Your task to perform on an android device: Open Google Chrome and click the shortcut for Amazon.com Image 0: 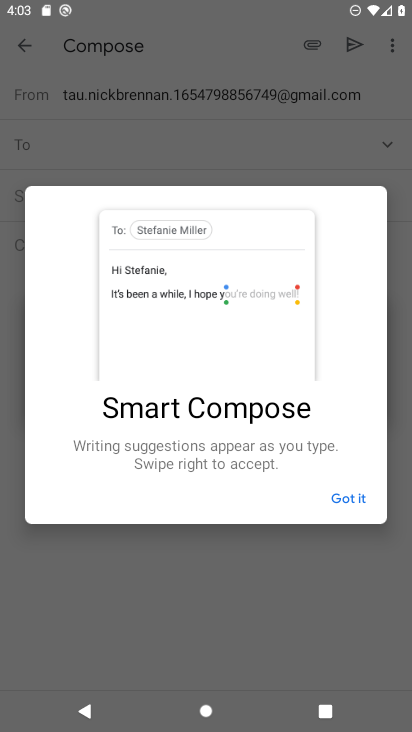
Step 0: press home button
Your task to perform on an android device: Open Google Chrome and click the shortcut for Amazon.com Image 1: 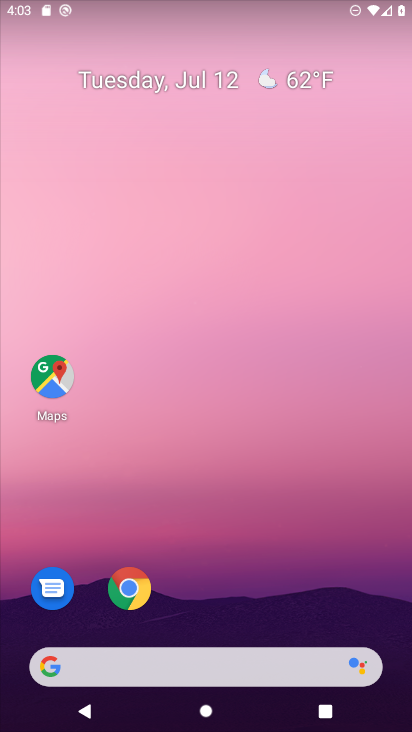
Step 1: click (137, 586)
Your task to perform on an android device: Open Google Chrome and click the shortcut for Amazon.com Image 2: 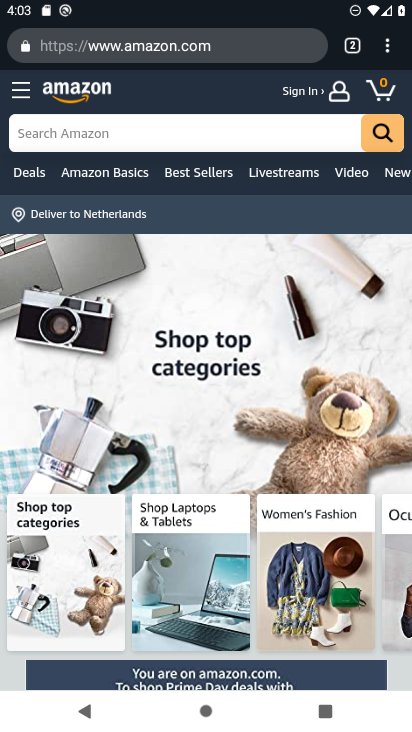
Step 2: click (389, 50)
Your task to perform on an android device: Open Google Chrome and click the shortcut for Amazon.com Image 3: 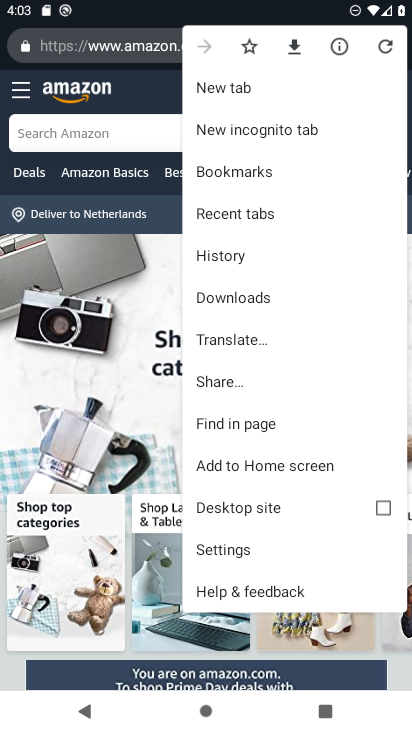
Step 3: click (231, 91)
Your task to perform on an android device: Open Google Chrome and click the shortcut for Amazon.com Image 4: 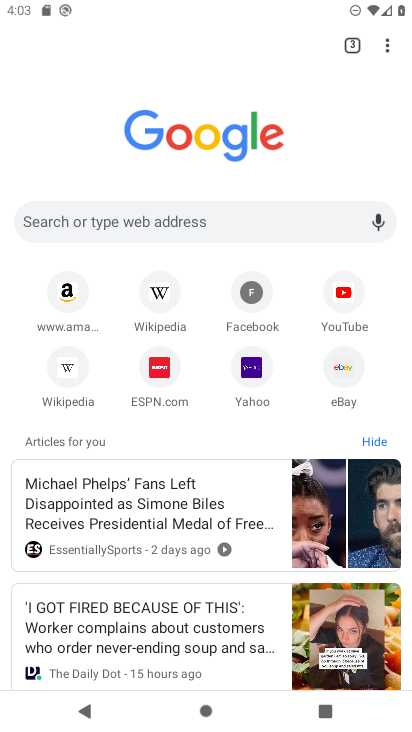
Step 4: click (58, 295)
Your task to perform on an android device: Open Google Chrome and click the shortcut for Amazon.com Image 5: 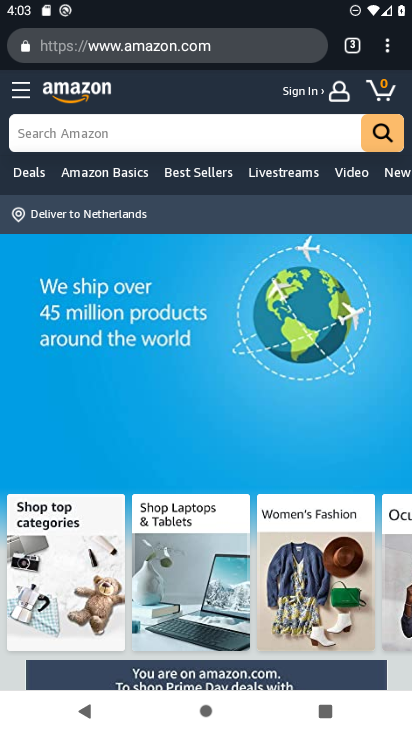
Step 5: task complete